Your task to perform on an android device: star an email in the gmail app Image 0: 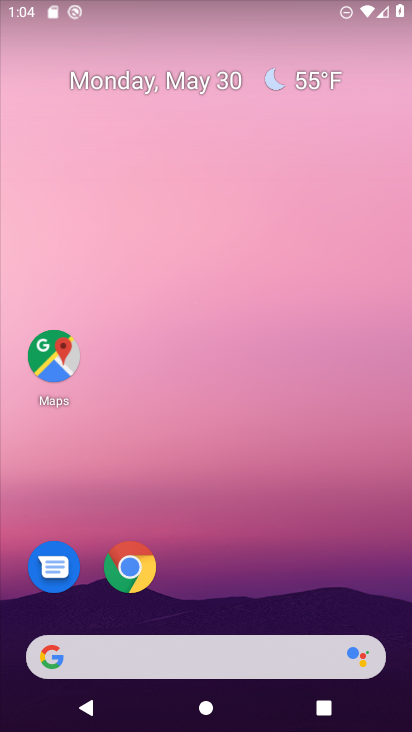
Step 0: drag from (213, 605) to (180, 100)
Your task to perform on an android device: star an email in the gmail app Image 1: 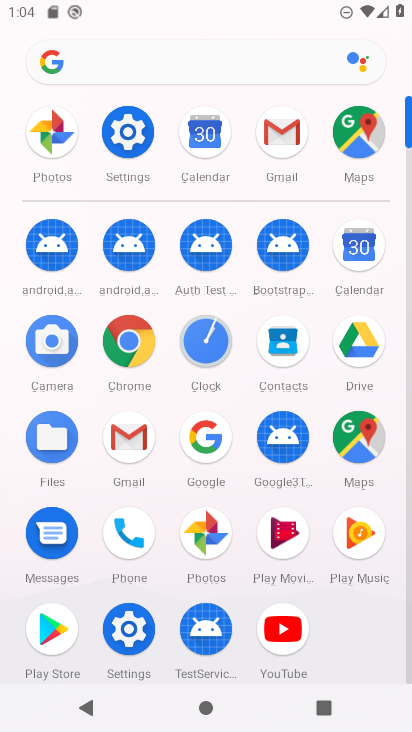
Step 1: click (128, 429)
Your task to perform on an android device: star an email in the gmail app Image 2: 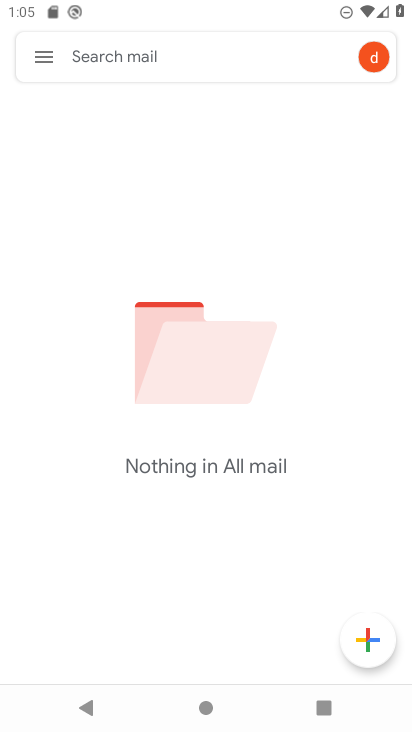
Step 2: task complete